Your task to perform on an android device: Open Youtube and go to "Your channel" Image 0: 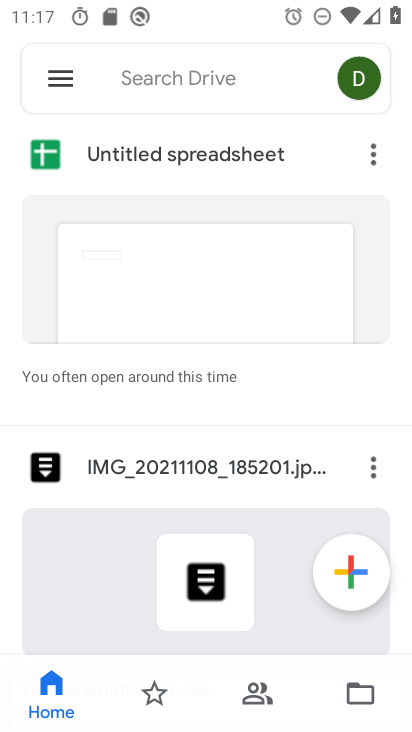
Step 0: press home button
Your task to perform on an android device: Open Youtube and go to "Your channel" Image 1: 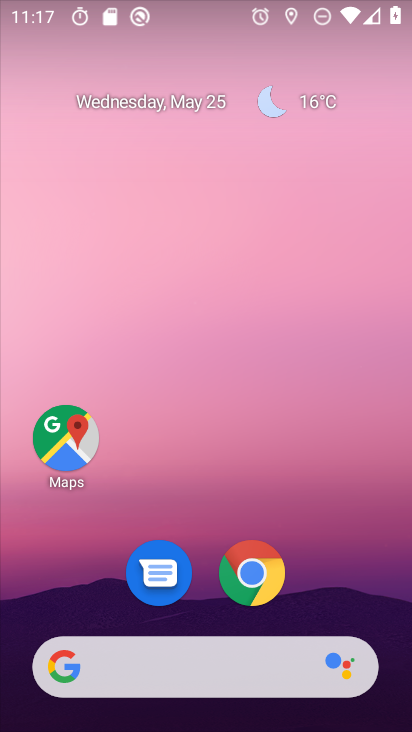
Step 1: drag from (343, 606) to (327, 2)
Your task to perform on an android device: Open Youtube and go to "Your channel" Image 2: 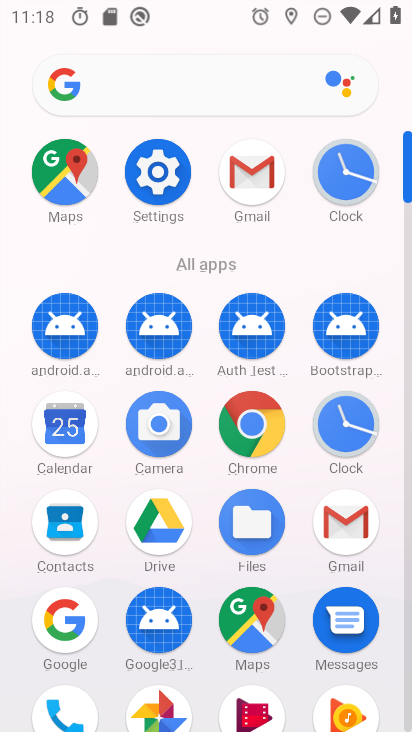
Step 2: click (407, 593)
Your task to perform on an android device: Open Youtube and go to "Your channel" Image 3: 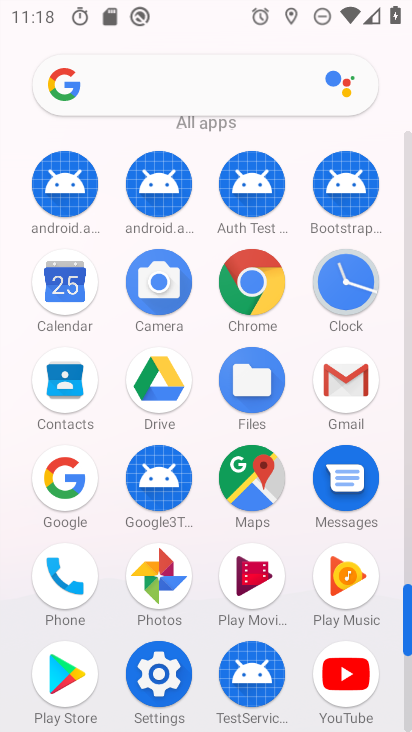
Step 3: click (339, 675)
Your task to perform on an android device: Open Youtube and go to "Your channel" Image 4: 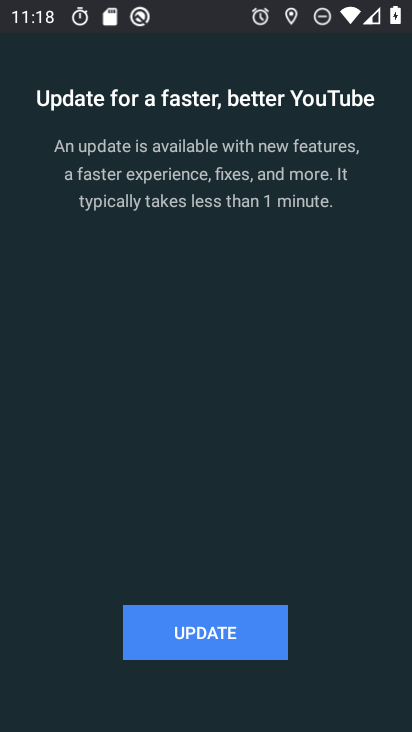
Step 4: click (189, 643)
Your task to perform on an android device: Open Youtube and go to "Your channel" Image 5: 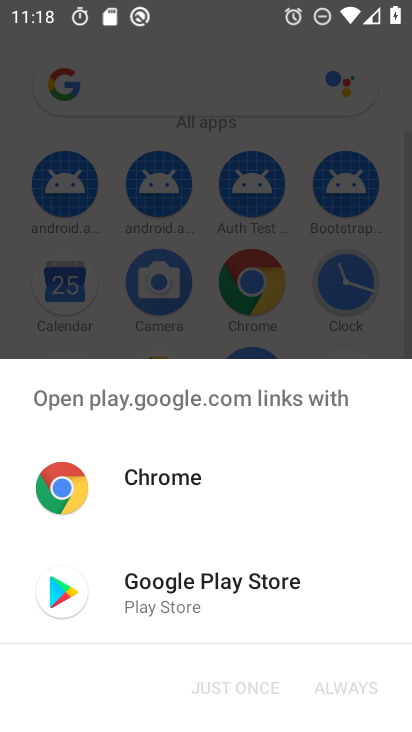
Step 5: click (134, 587)
Your task to perform on an android device: Open Youtube and go to "Your channel" Image 6: 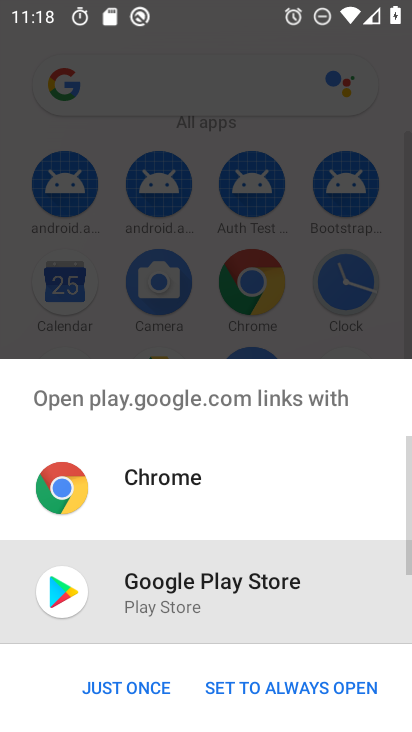
Step 6: click (110, 692)
Your task to perform on an android device: Open Youtube and go to "Your channel" Image 7: 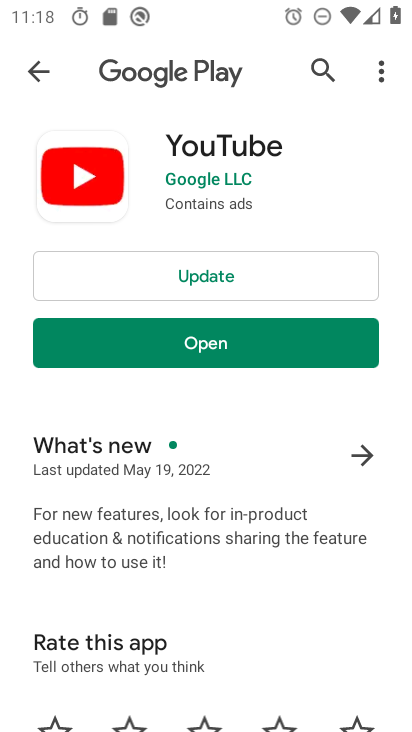
Step 7: click (199, 280)
Your task to perform on an android device: Open Youtube and go to "Your channel" Image 8: 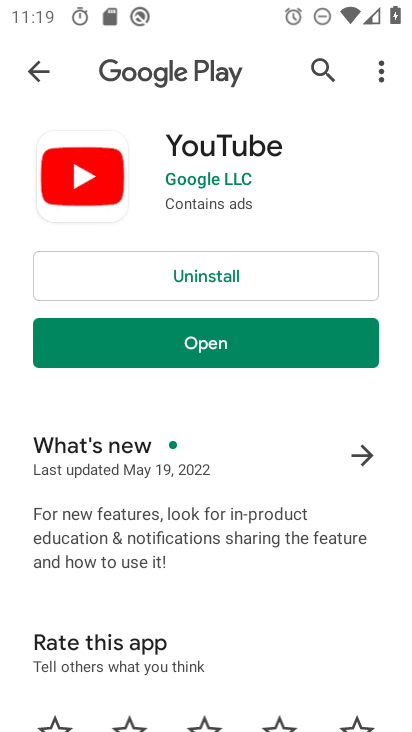
Step 8: click (200, 345)
Your task to perform on an android device: Open Youtube and go to "Your channel" Image 9: 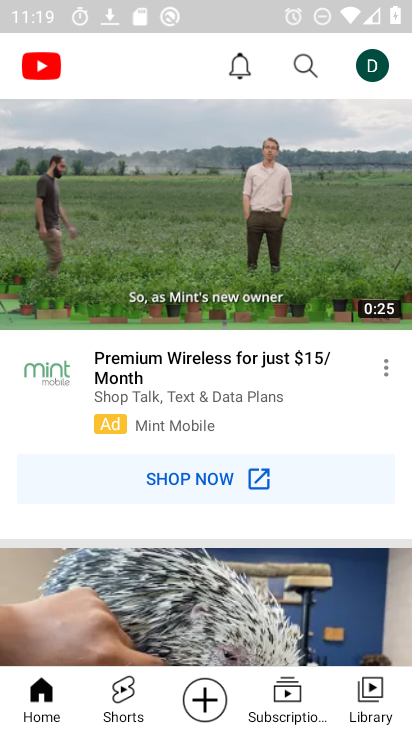
Step 9: click (367, 68)
Your task to perform on an android device: Open Youtube and go to "Your channel" Image 10: 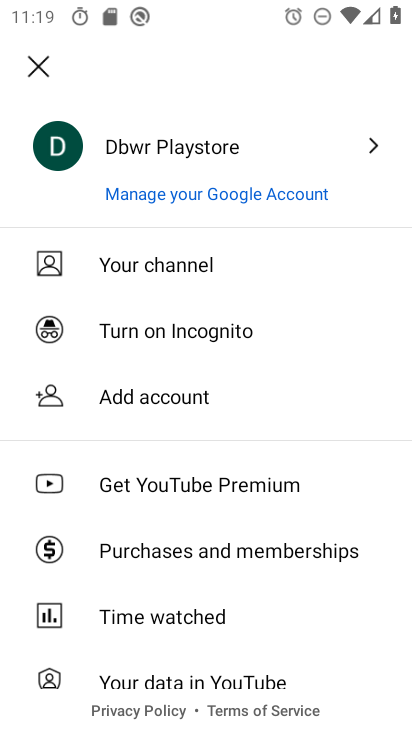
Step 10: click (130, 269)
Your task to perform on an android device: Open Youtube and go to "Your channel" Image 11: 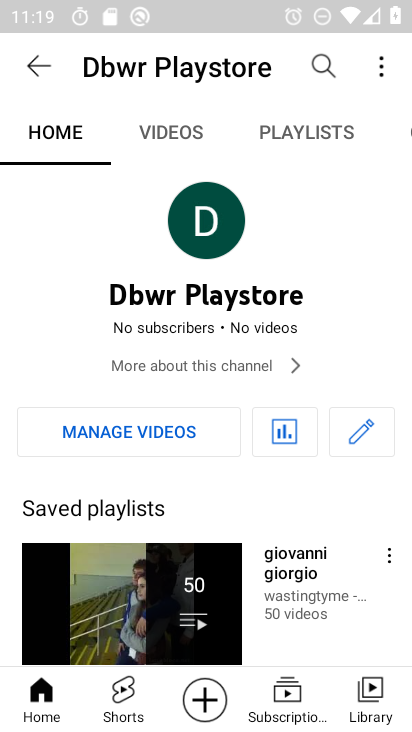
Step 11: task complete